Your task to perform on an android device: turn off location Image 0: 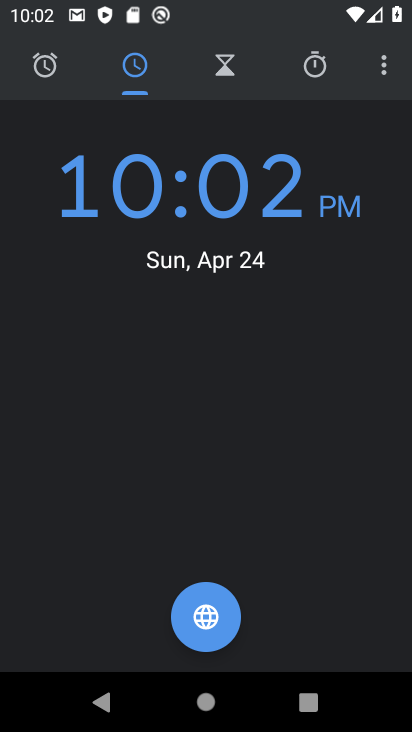
Step 0: press home button
Your task to perform on an android device: turn off location Image 1: 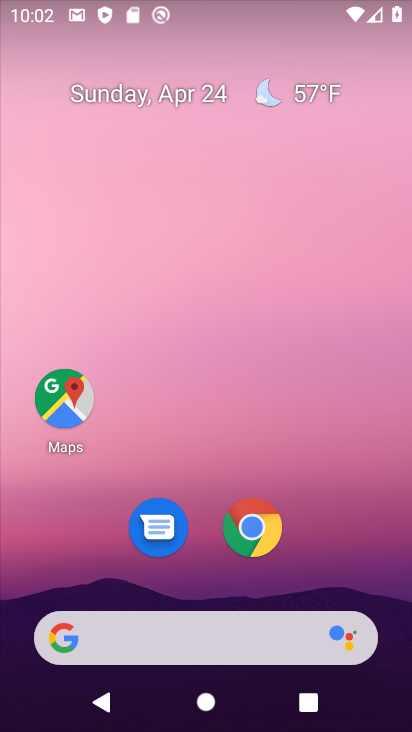
Step 1: drag from (259, 694) to (146, 56)
Your task to perform on an android device: turn off location Image 2: 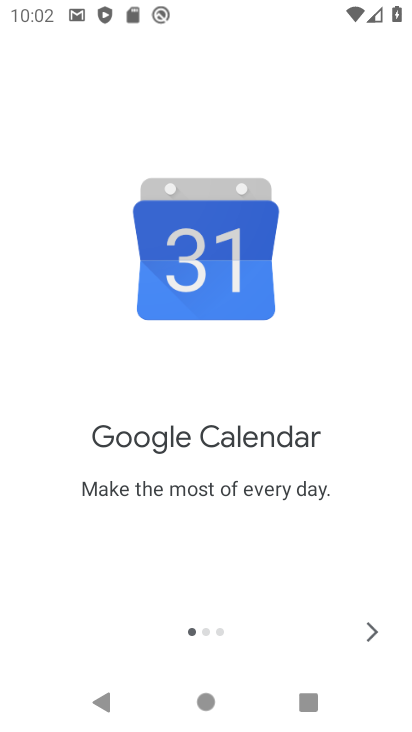
Step 2: click (373, 629)
Your task to perform on an android device: turn off location Image 3: 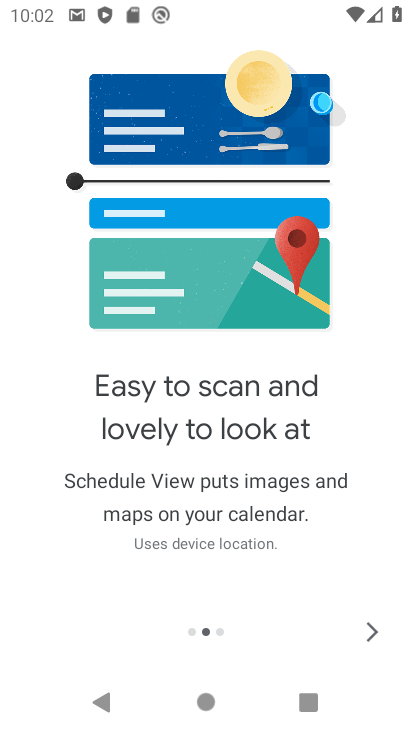
Step 3: click (373, 629)
Your task to perform on an android device: turn off location Image 4: 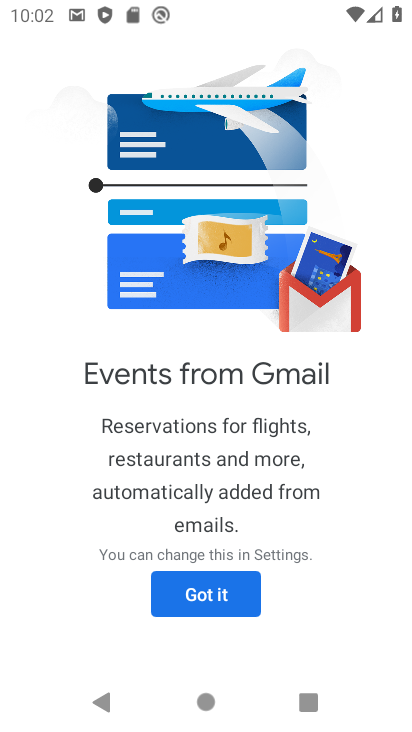
Step 4: click (214, 592)
Your task to perform on an android device: turn off location Image 5: 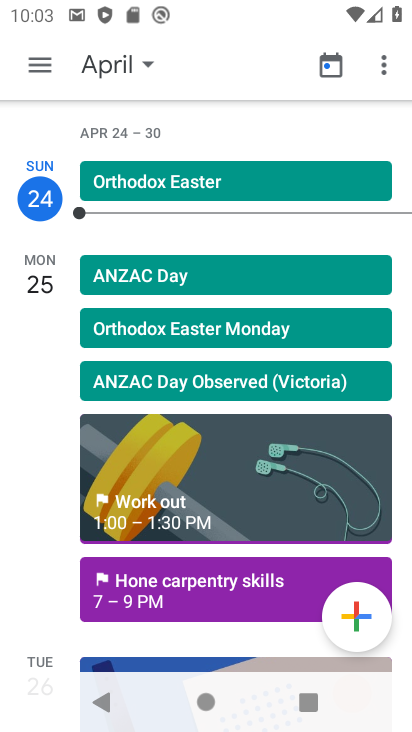
Step 5: click (139, 70)
Your task to perform on an android device: turn off location Image 6: 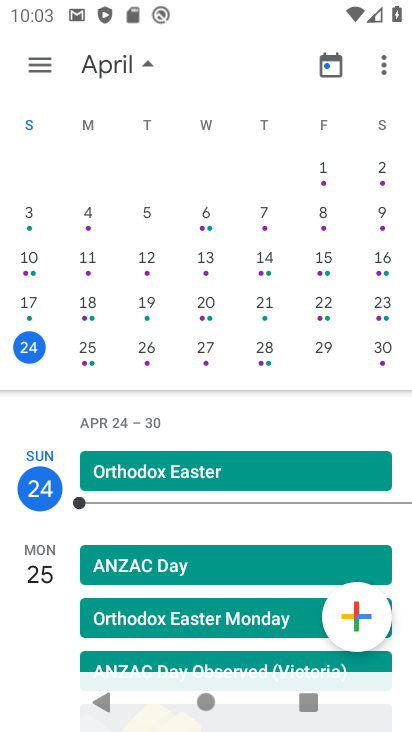
Step 6: click (140, 69)
Your task to perform on an android device: turn off location Image 7: 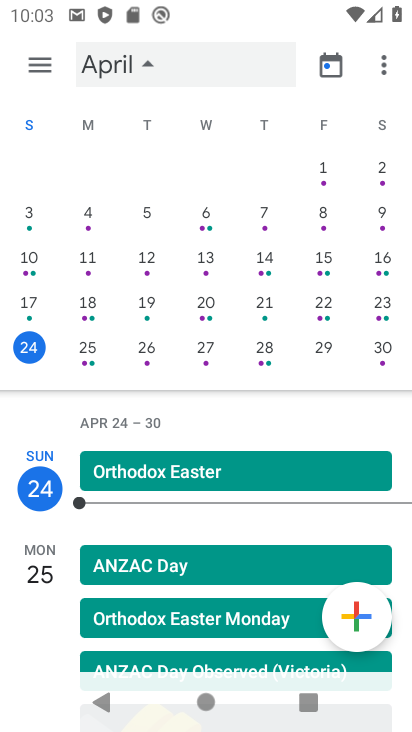
Step 7: click (141, 69)
Your task to perform on an android device: turn off location Image 8: 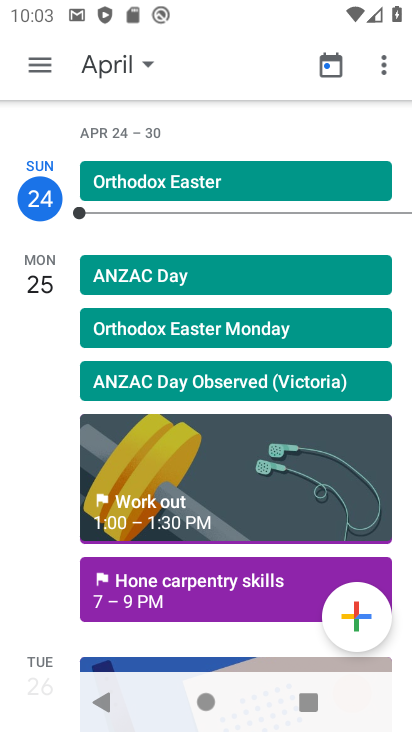
Step 8: click (142, 69)
Your task to perform on an android device: turn off location Image 9: 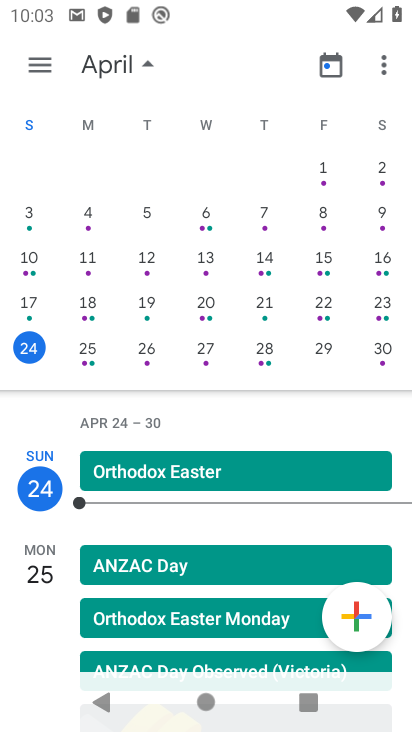
Step 9: drag from (223, 321) to (2, 359)
Your task to perform on an android device: turn off location Image 10: 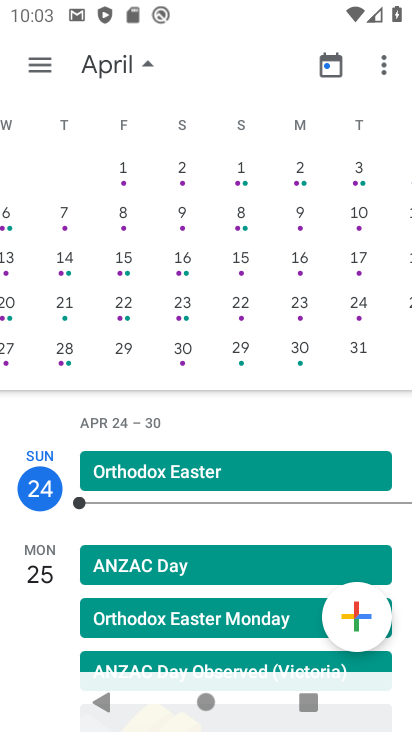
Step 10: drag from (198, 333) to (42, 326)
Your task to perform on an android device: turn off location Image 11: 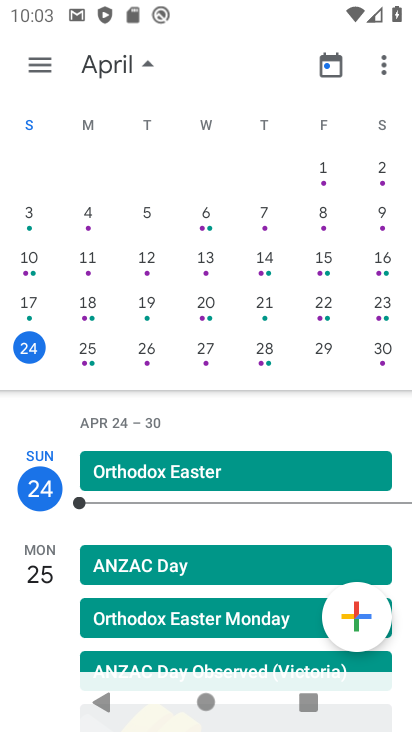
Step 11: drag from (249, 330) to (50, 327)
Your task to perform on an android device: turn off location Image 12: 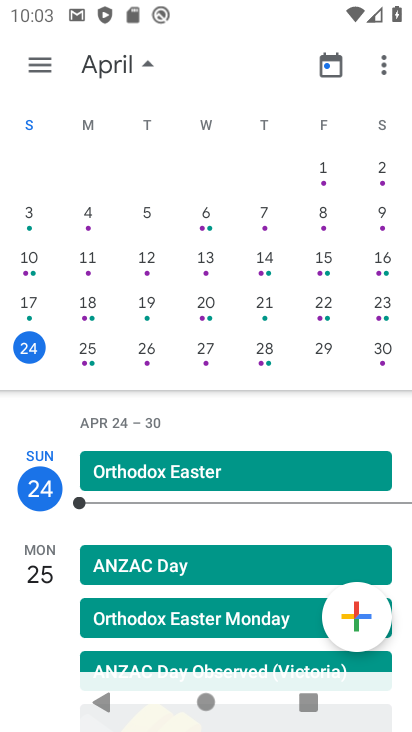
Step 12: drag from (207, 348) to (2, 303)
Your task to perform on an android device: turn off location Image 13: 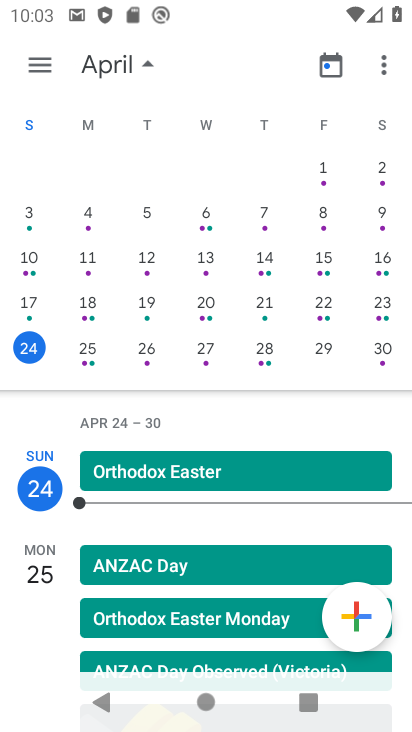
Step 13: drag from (205, 307) to (5, 341)
Your task to perform on an android device: turn off location Image 14: 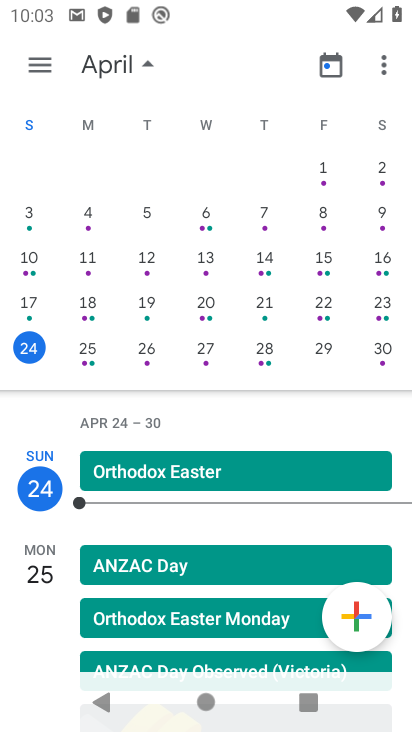
Step 14: press home button
Your task to perform on an android device: turn off location Image 15: 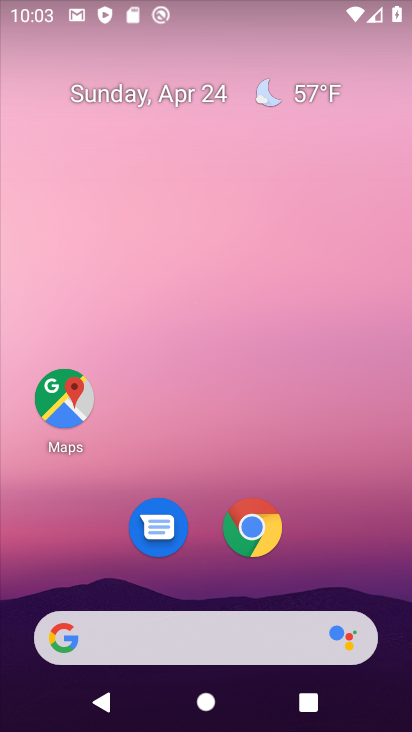
Step 15: drag from (218, 588) to (104, 0)
Your task to perform on an android device: turn off location Image 16: 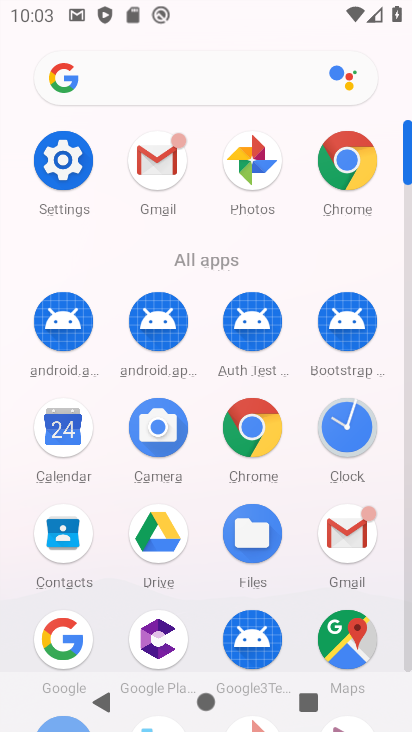
Step 16: click (67, 153)
Your task to perform on an android device: turn off location Image 17: 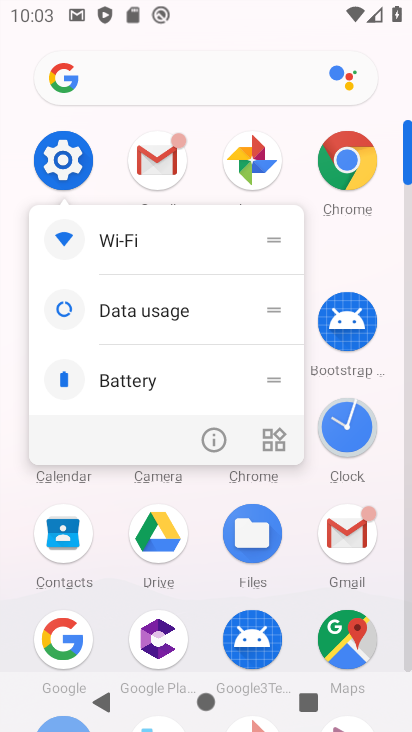
Step 17: click (63, 158)
Your task to perform on an android device: turn off location Image 18: 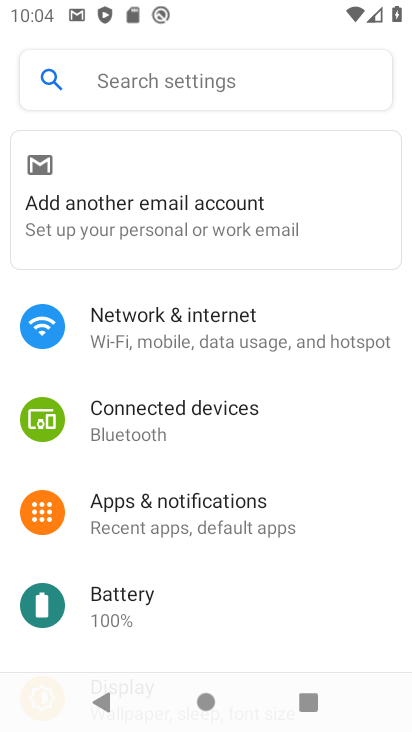
Step 18: click (173, 523)
Your task to perform on an android device: turn off location Image 19: 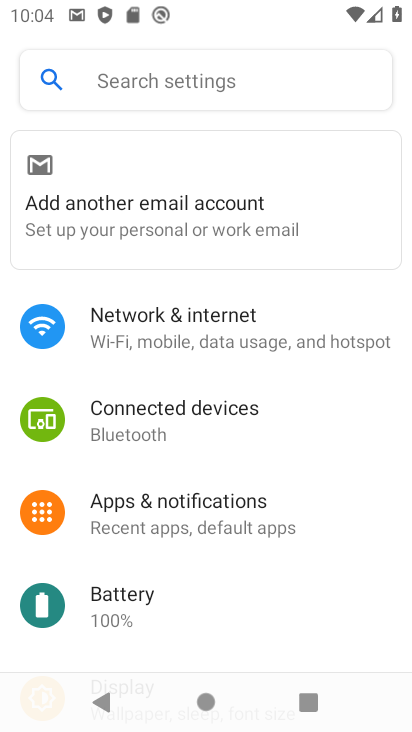
Step 19: click (173, 523)
Your task to perform on an android device: turn off location Image 20: 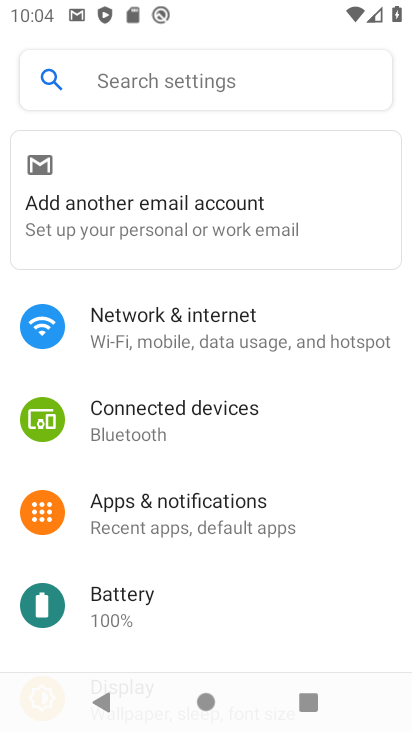
Step 20: click (172, 522)
Your task to perform on an android device: turn off location Image 21: 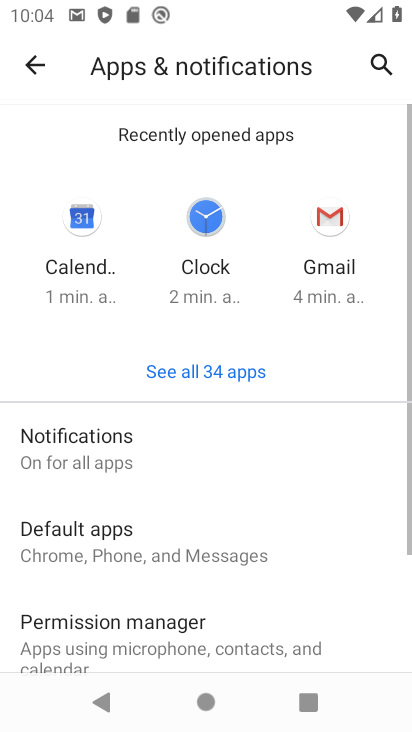
Step 21: drag from (119, 508) to (64, 149)
Your task to perform on an android device: turn off location Image 22: 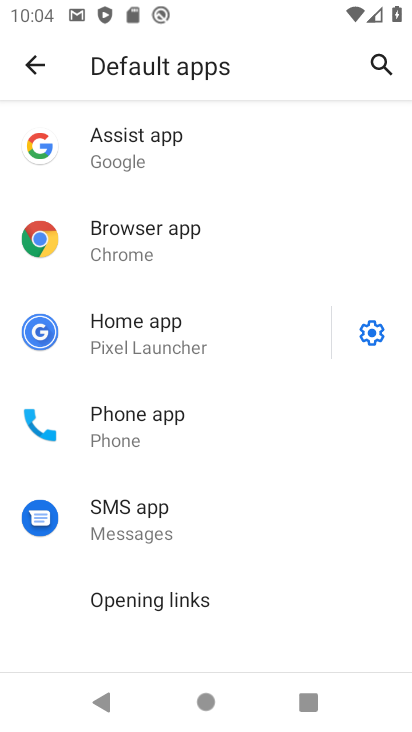
Step 22: drag from (184, 495) to (137, 13)
Your task to perform on an android device: turn off location Image 23: 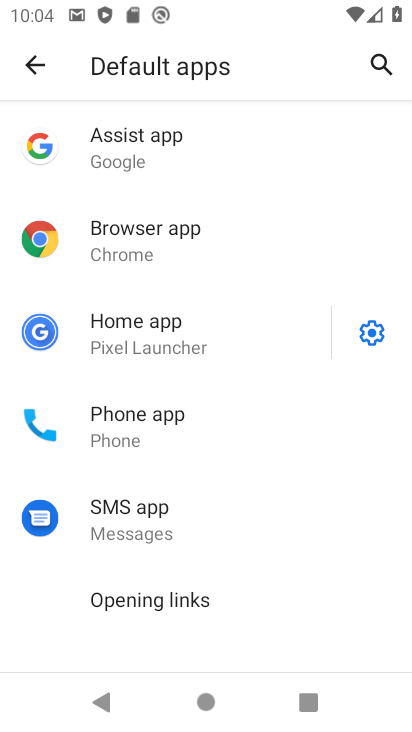
Step 23: click (26, 60)
Your task to perform on an android device: turn off location Image 24: 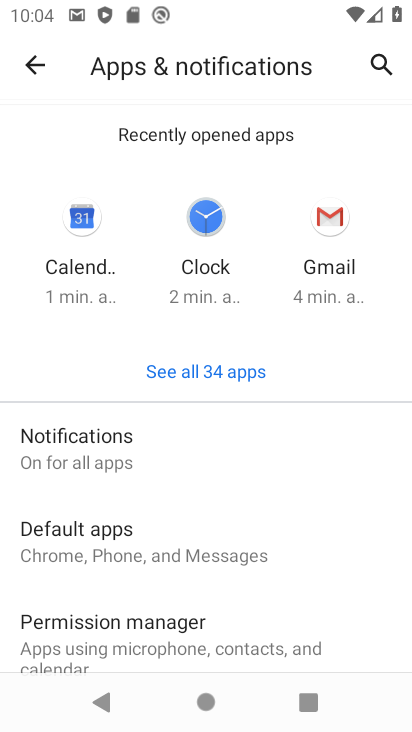
Step 24: drag from (131, 582) to (109, 182)
Your task to perform on an android device: turn off location Image 25: 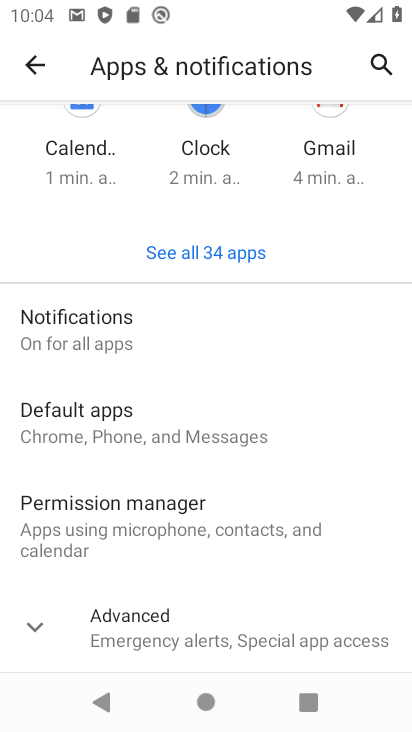
Step 25: click (164, 624)
Your task to perform on an android device: turn off location Image 26: 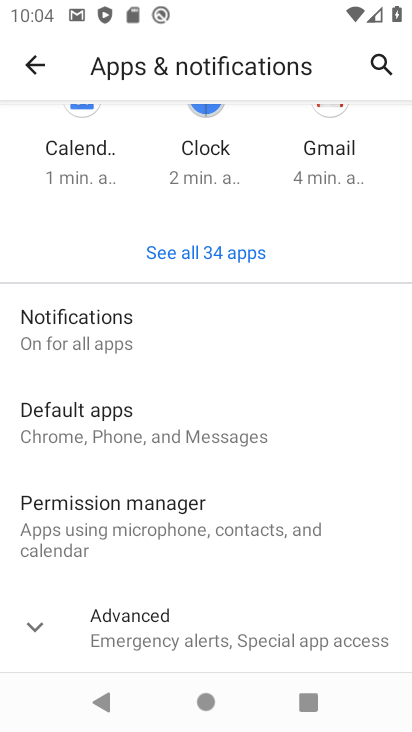
Step 26: click (70, 335)
Your task to perform on an android device: turn off location Image 27: 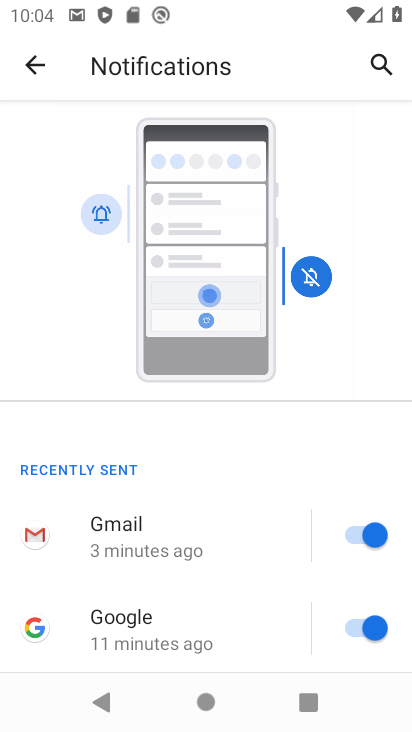
Step 27: drag from (172, 568) to (227, 13)
Your task to perform on an android device: turn off location Image 28: 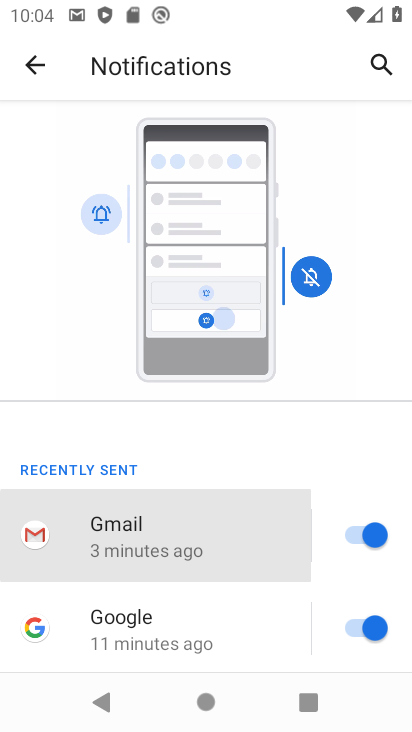
Step 28: drag from (291, 497) to (239, 0)
Your task to perform on an android device: turn off location Image 29: 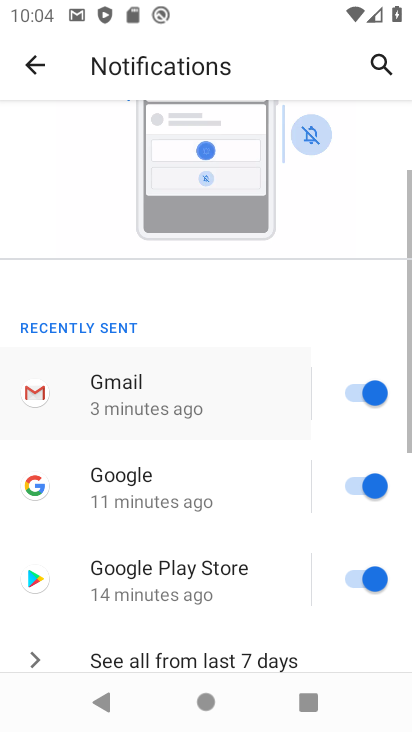
Step 29: drag from (276, 308) to (247, 2)
Your task to perform on an android device: turn off location Image 30: 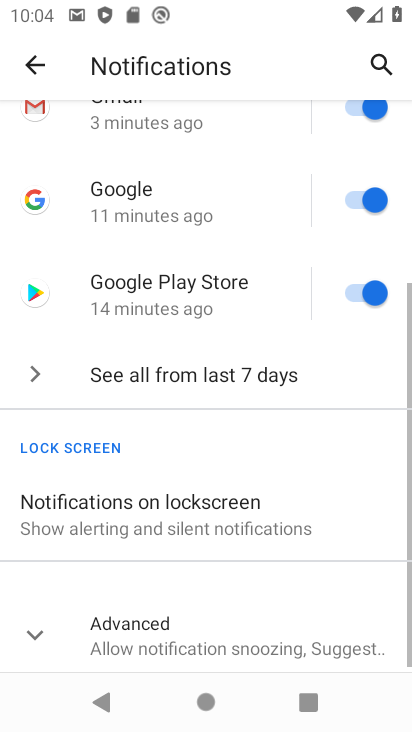
Step 30: drag from (252, 473) to (248, 78)
Your task to perform on an android device: turn off location Image 31: 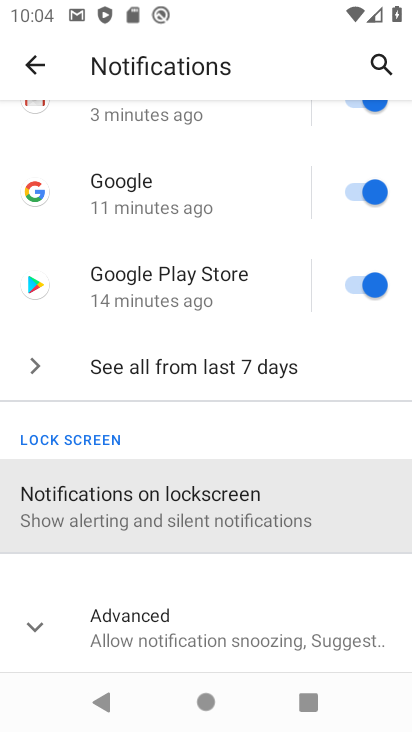
Step 31: drag from (239, 175) to (218, 0)
Your task to perform on an android device: turn off location Image 32: 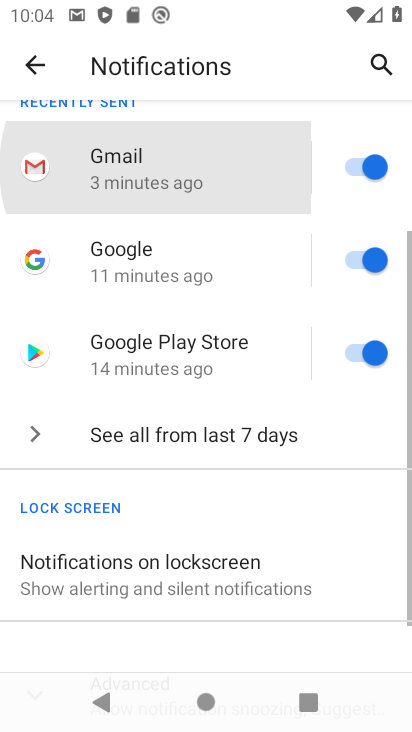
Step 32: drag from (263, 665) to (230, 42)
Your task to perform on an android device: turn off location Image 33: 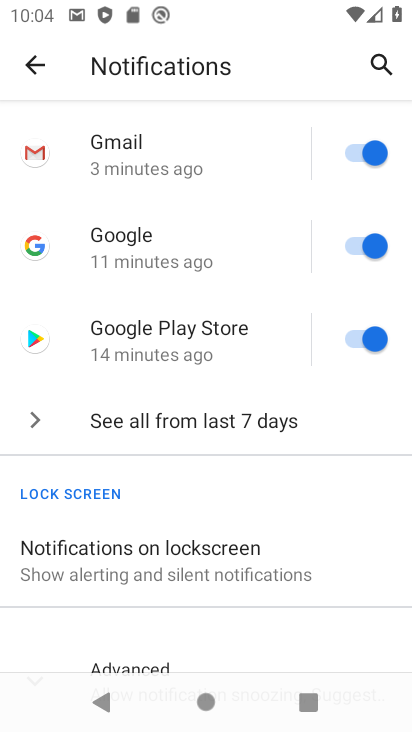
Step 33: drag from (172, 502) to (145, 12)
Your task to perform on an android device: turn off location Image 34: 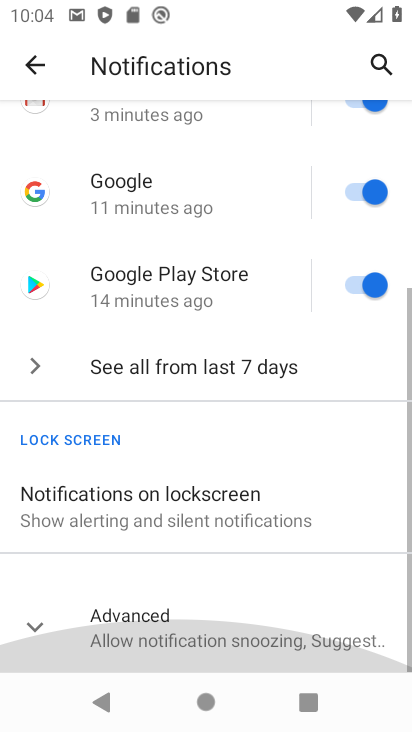
Step 34: drag from (206, 191) to (191, 105)
Your task to perform on an android device: turn off location Image 35: 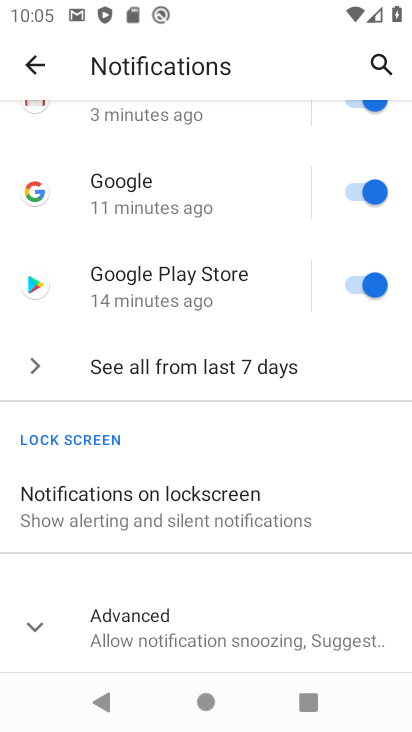
Step 35: click (138, 616)
Your task to perform on an android device: turn off location Image 36: 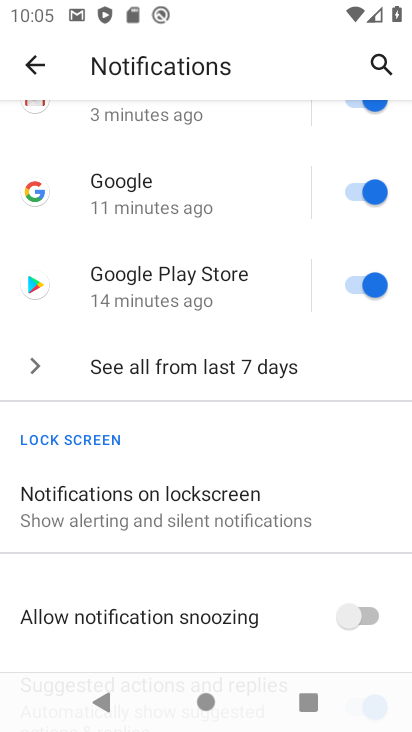
Step 36: drag from (219, 587) to (159, 300)
Your task to perform on an android device: turn off location Image 37: 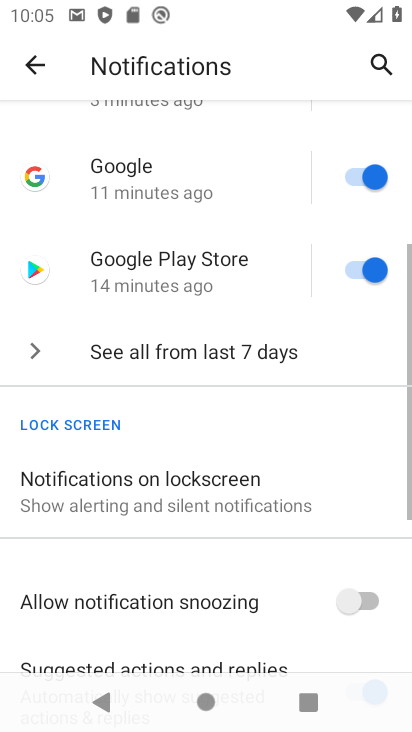
Step 37: drag from (160, 397) to (137, 269)
Your task to perform on an android device: turn off location Image 38: 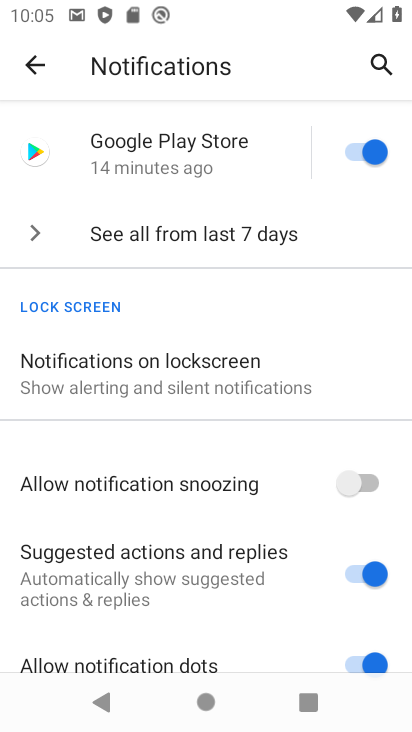
Step 38: click (23, 66)
Your task to perform on an android device: turn off location Image 39: 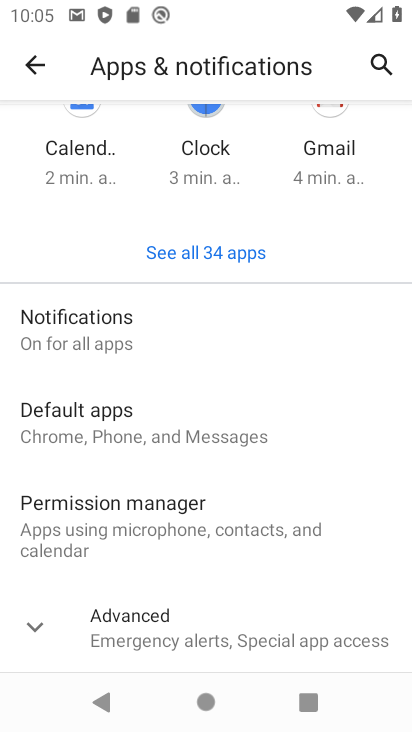
Step 39: click (21, 62)
Your task to perform on an android device: turn off location Image 40: 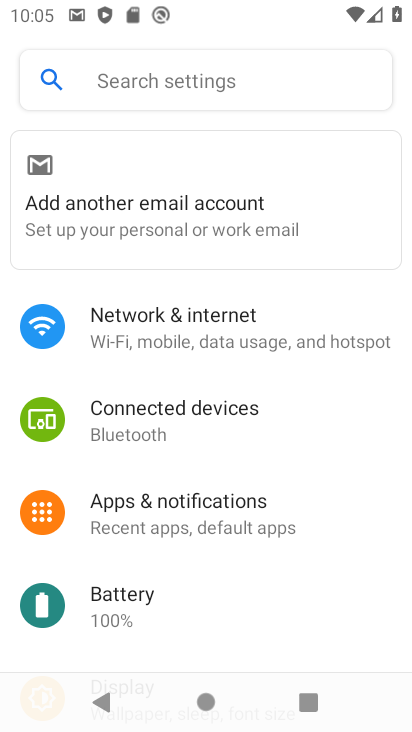
Step 40: drag from (166, 462) to (147, 327)
Your task to perform on an android device: turn off location Image 41: 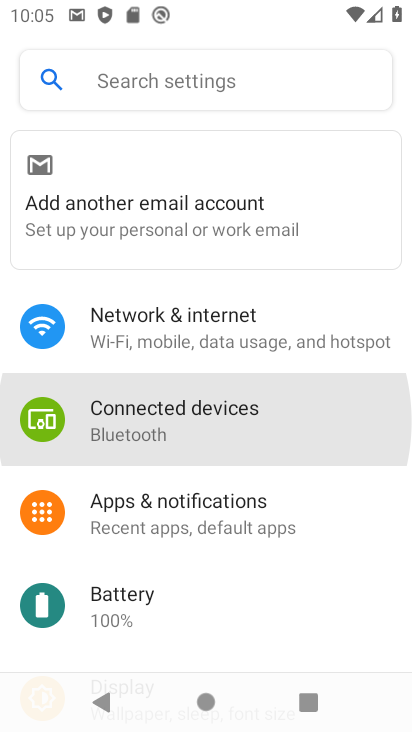
Step 41: drag from (172, 374) to (159, 168)
Your task to perform on an android device: turn off location Image 42: 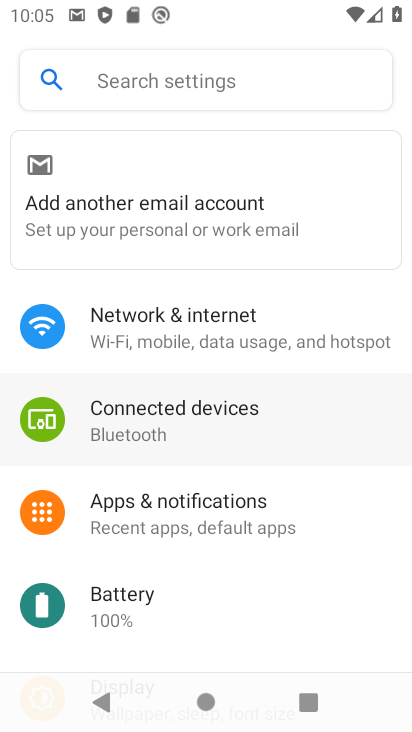
Step 42: drag from (156, 496) to (160, 160)
Your task to perform on an android device: turn off location Image 43: 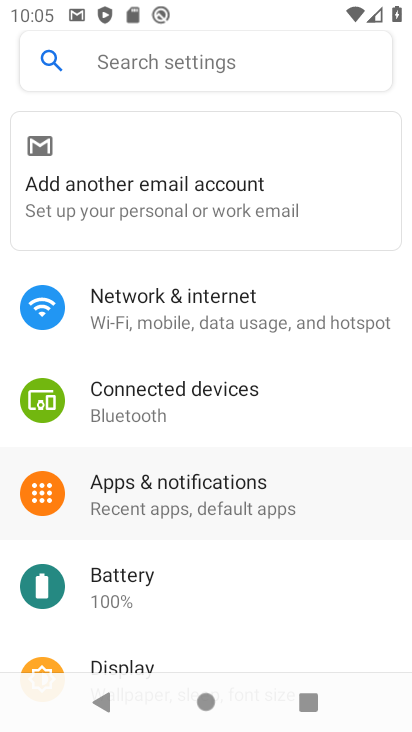
Step 43: drag from (264, 419) to (264, 167)
Your task to perform on an android device: turn off location Image 44: 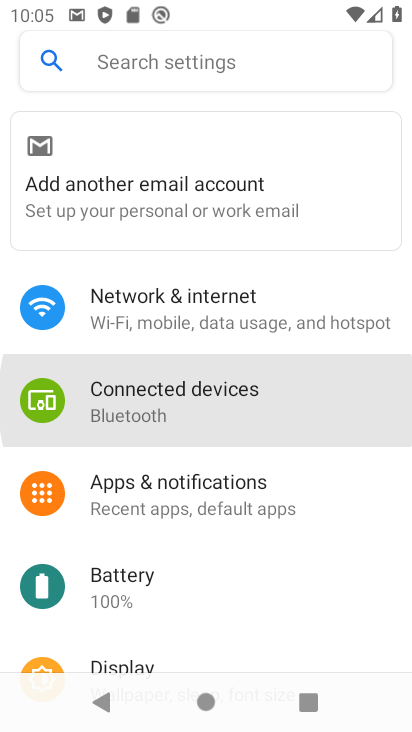
Step 44: drag from (253, 470) to (207, 146)
Your task to perform on an android device: turn off location Image 45: 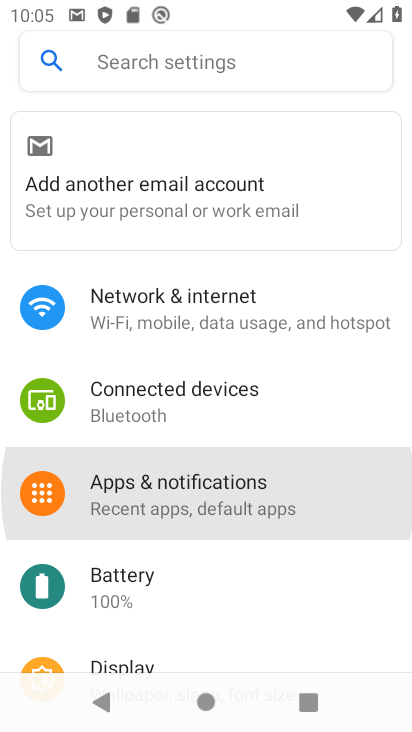
Step 45: drag from (217, 352) to (203, 72)
Your task to perform on an android device: turn off location Image 46: 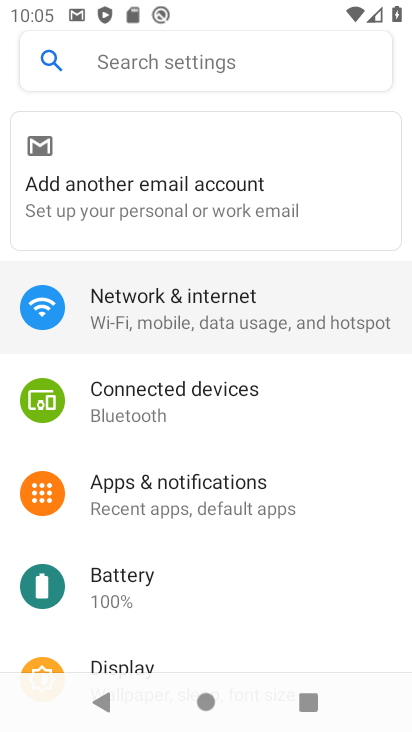
Step 46: drag from (227, 403) to (219, 349)
Your task to perform on an android device: turn off location Image 47: 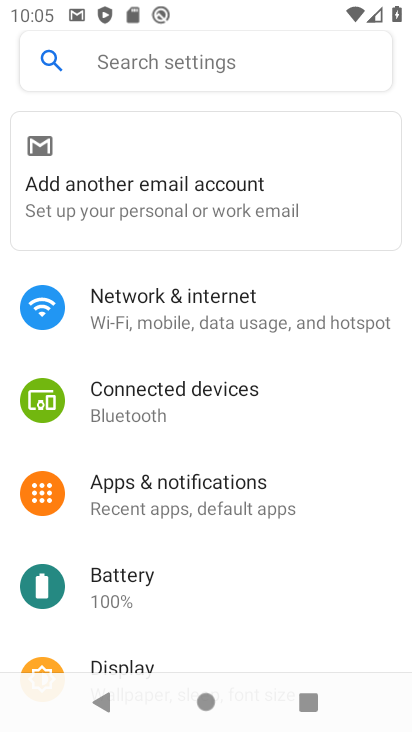
Step 47: drag from (244, 586) to (176, 254)
Your task to perform on an android device: turn off location Image 48: 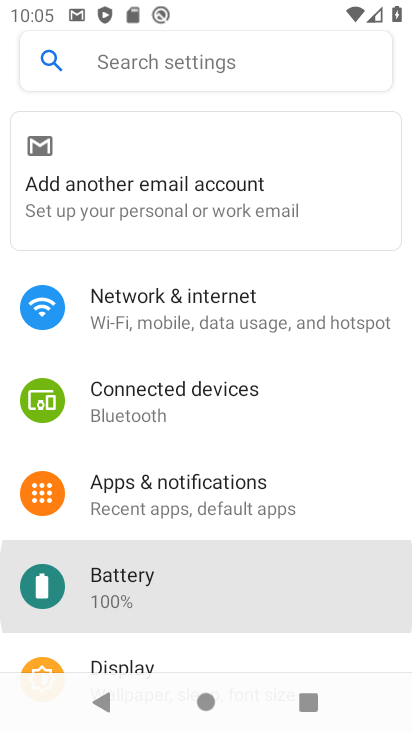
Step 48: drag from (226, 555) to (160, 269)
Your task to perform on an android device: turn off location Image 49: 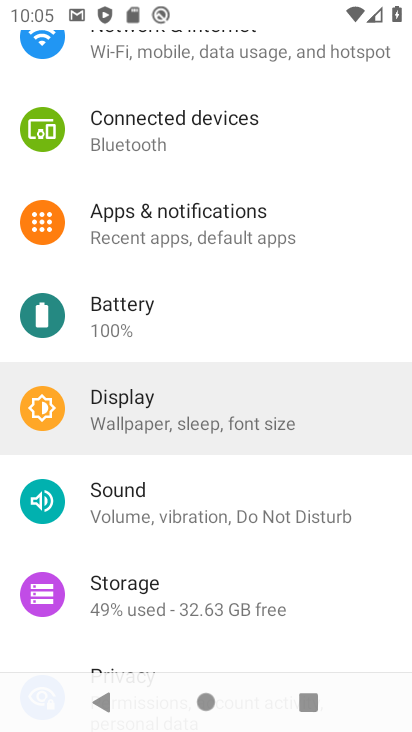
Step 49: drag from (177, 544) to (112, 122)
Your task to perform on an android device: turn off location Image 50: 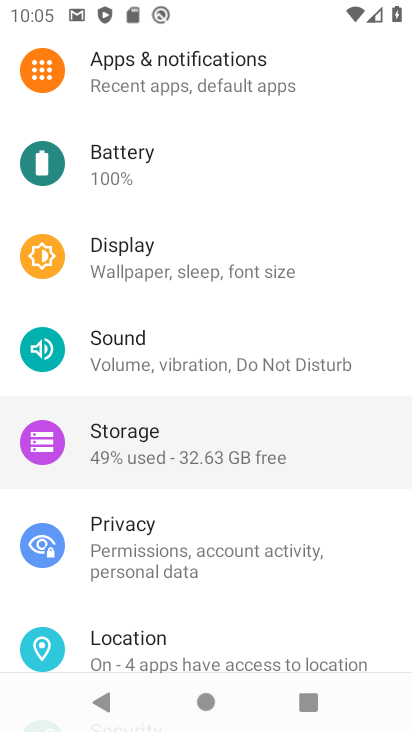
Step 50: drag from (213, 449) to (176, 1)
Your task to perform on an android device: turn off location Image 51: 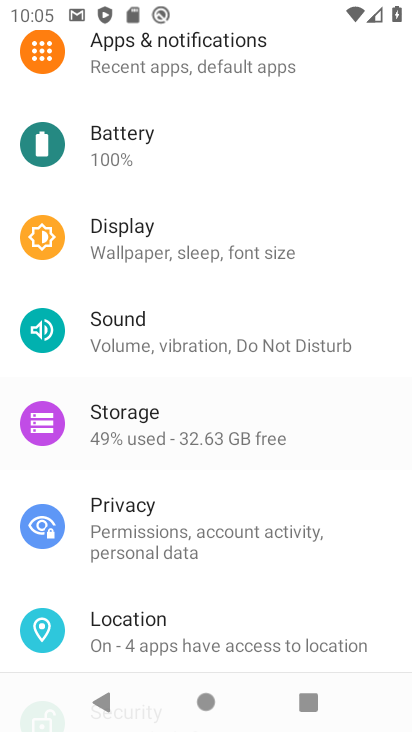
Step 51: drag from (180, 191) to (178, 76)
Your task to perform on an android device: turn off location Image 52: 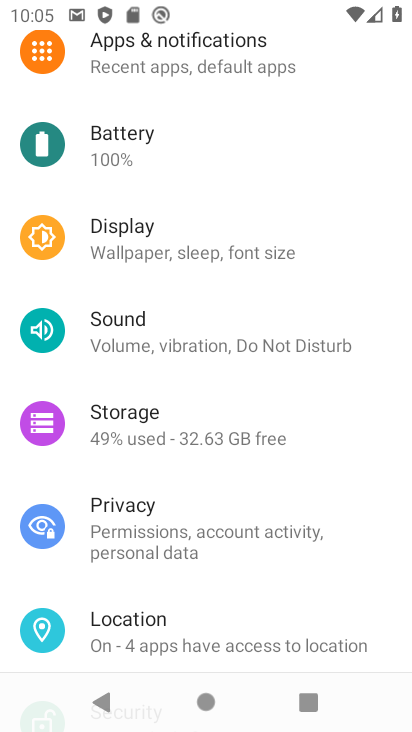
Step 52: click (130, 632)
Your task to perform on an android device: turn off location Image 53: 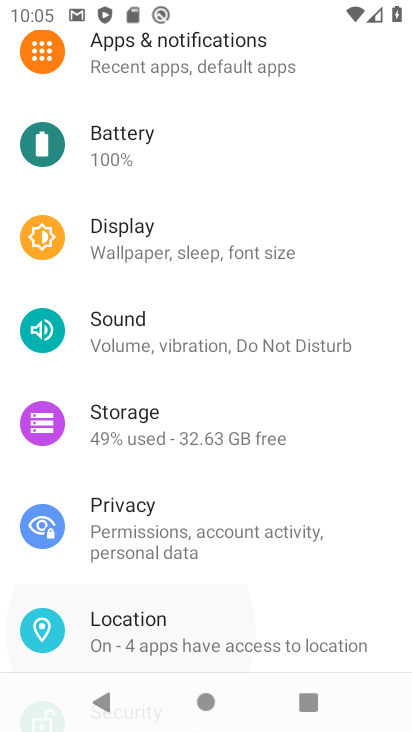
Step 53: click (130, 632)
Your task to perform on an android device: turn off location Image 54: 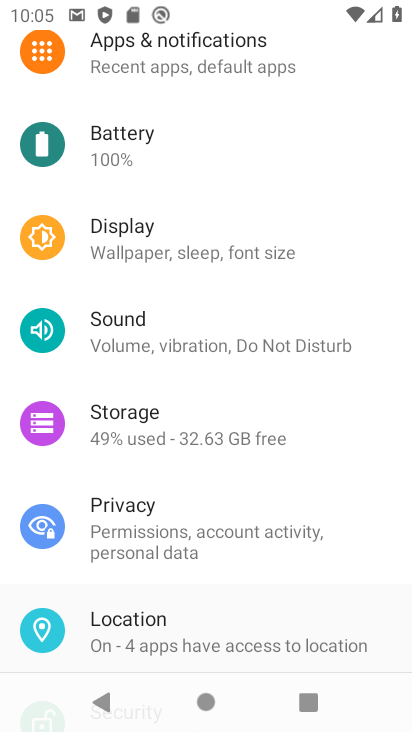
Step 54: click (129, 632)
Your task to perform on an android device: turn off location Image 55: 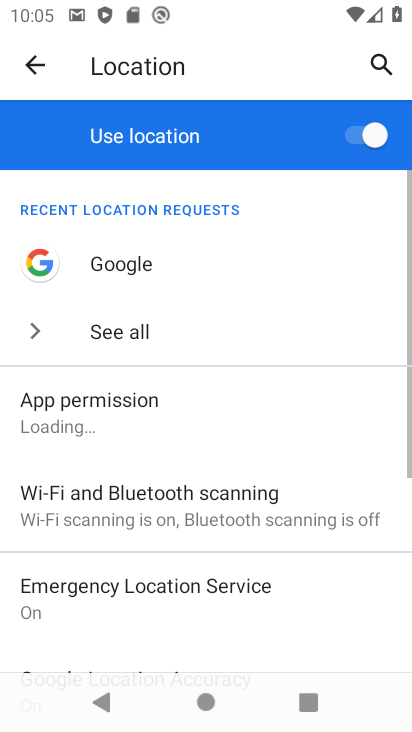
Step 55: drag from (160, 479) to (194, 71)
Your task to perform on an android device: turn off location Image 56: 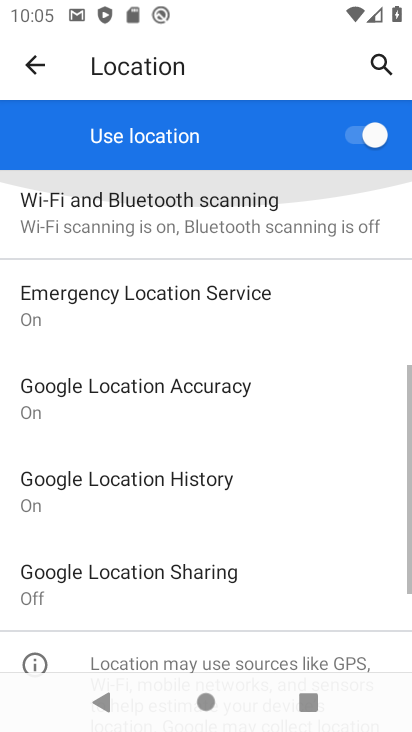
Step 56: drag from (214, 274) to (214, 64)
Your task to perform on an android device: turn off location Image 57: 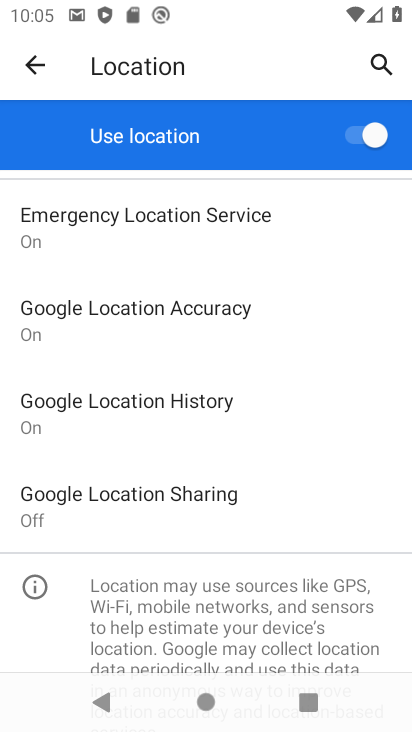
Step 57: click (379, 132)
Your task to perform on an android device: turn off location Image 58: 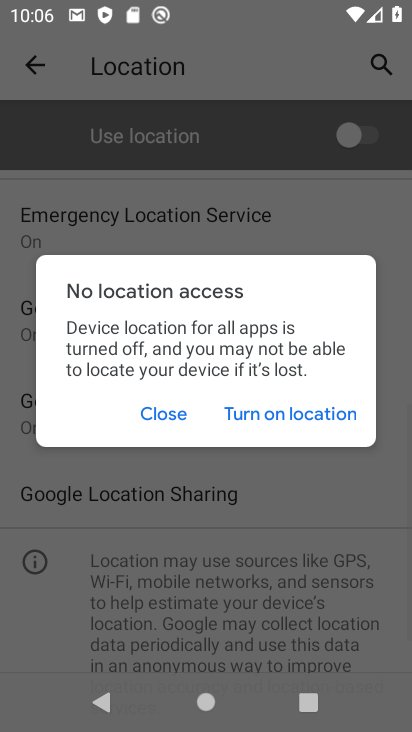
Step 58: task complete